Your task to perform on an android device: Show me recent news Image 0: 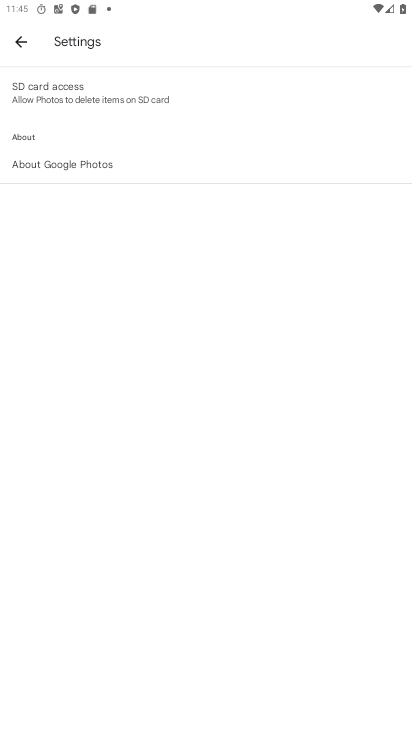
Step 0: drag from (273, 637) to (409, 507)
Your task to perform on an android device: Show me recent news Image 1: 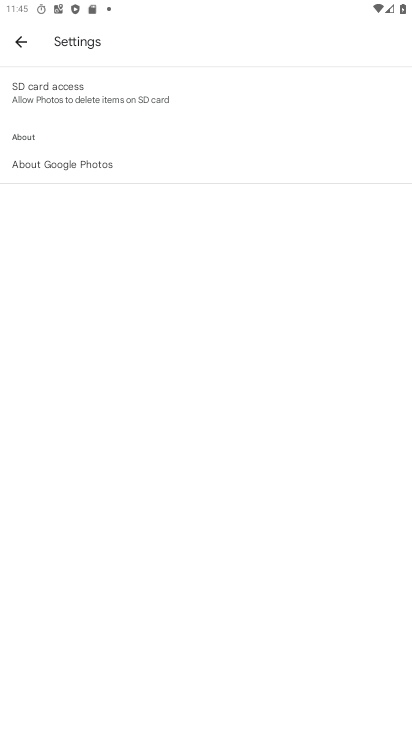
Step 1: press home button
Your task to perform on an android device: Show me recent news Image 2: 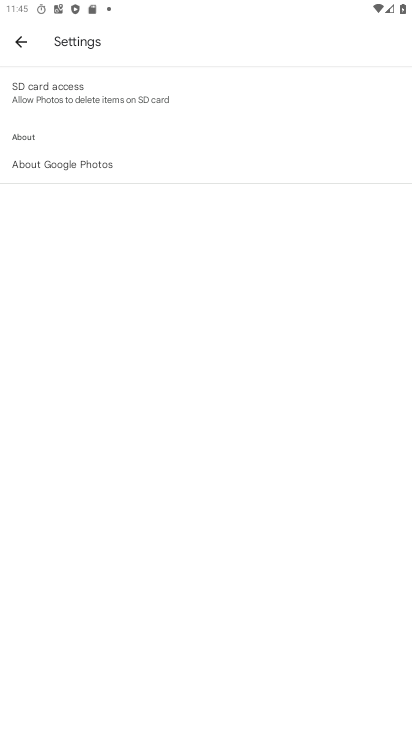
Step 2: click (340, 305)
Your task to perform on an android device: Show me recent news Image 3: 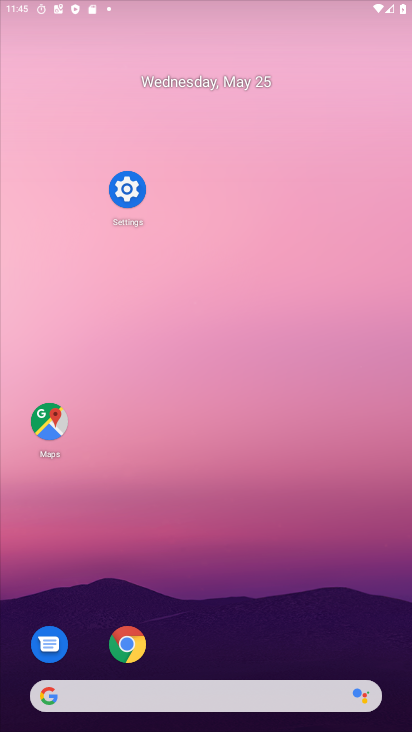
Step 3: drag from (237, 604) to (231, 108)
Your task to perform on an android device: Show me recent news Image 4: 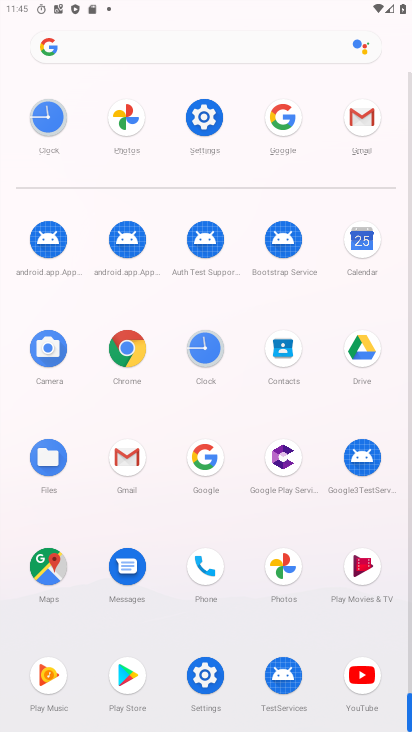
Step 4: click (207, 445)
Your task to perform on an android device: Show me recent news Image 5: 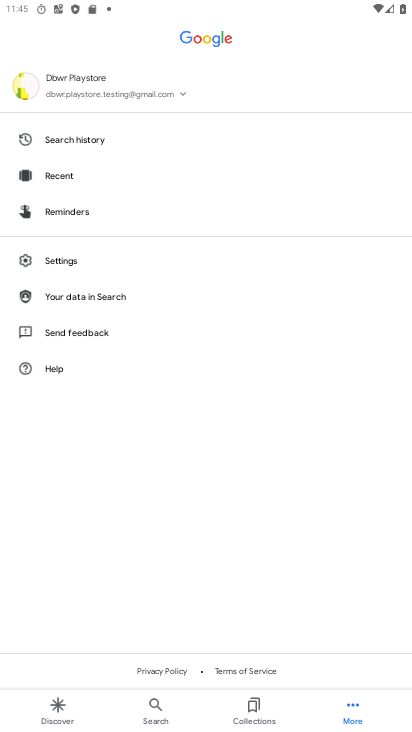
Step 5: press back button
Your task to perform on an android device: Show me recent news Image 6: 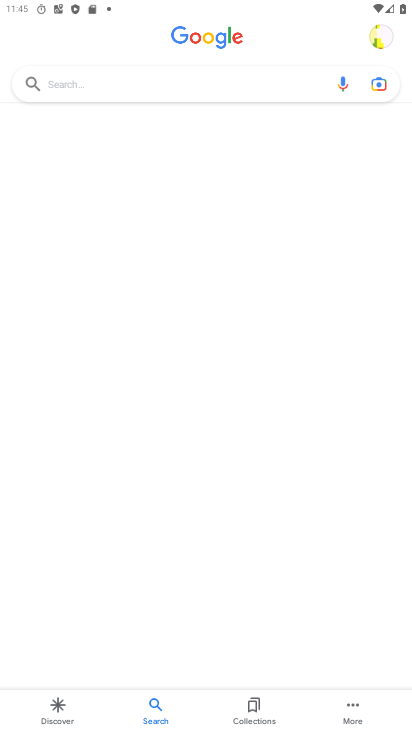
Step 6: click (132, 87)
Your task to perform on an android device: Show me recent news Image 7: 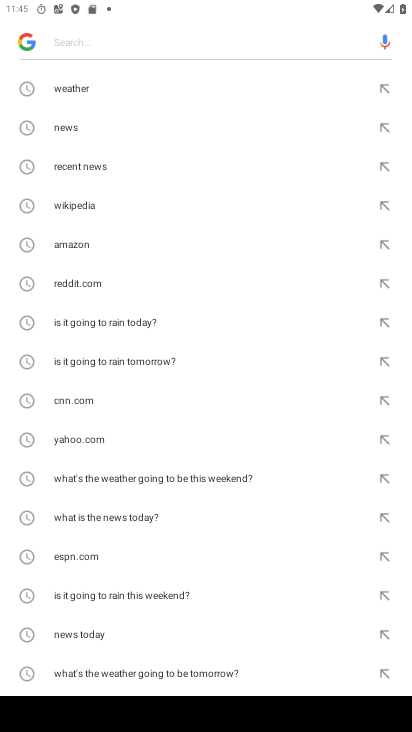
Step 7: click (98, 164)
Your task to perform on an android device: Show me recent news Image 8: 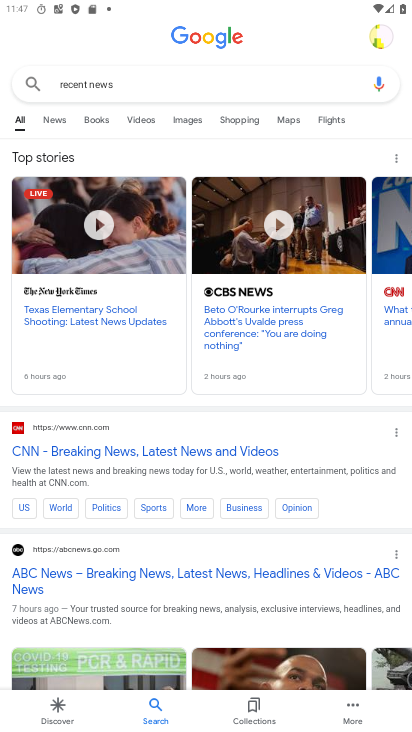
Step 8: task complete